Your task to perform on an android device: turn off smart reply in the gmail app Image 0: 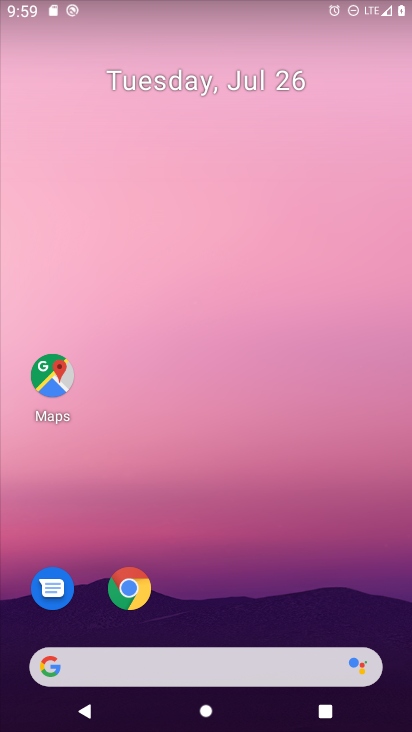
Step 0: drag from (183, 663) to (151, 96)
Your task to perform on an android device: turn off smart reply in the gmail app Image 1: 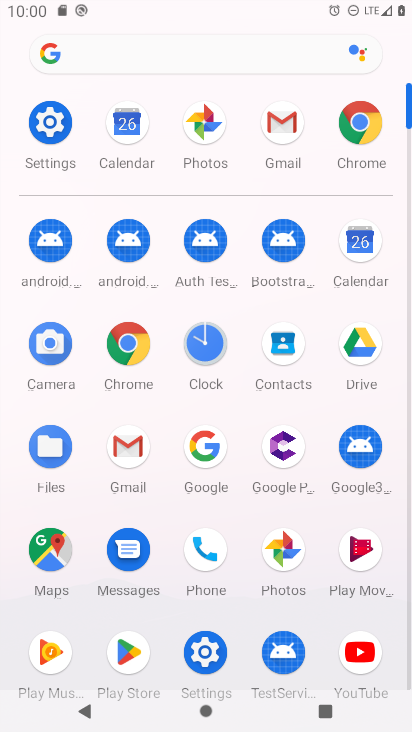
Step 1: click (149, 454)
Your task to perform on an android device: turn off smart reply in the gmail app Image 2: 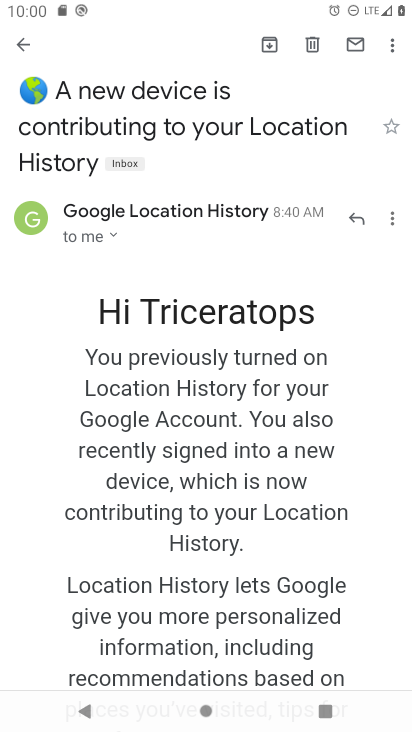
Step 2: click (21, 50)
Your task to perform on an android device: turn off smart reply in the gmail app Image 3: 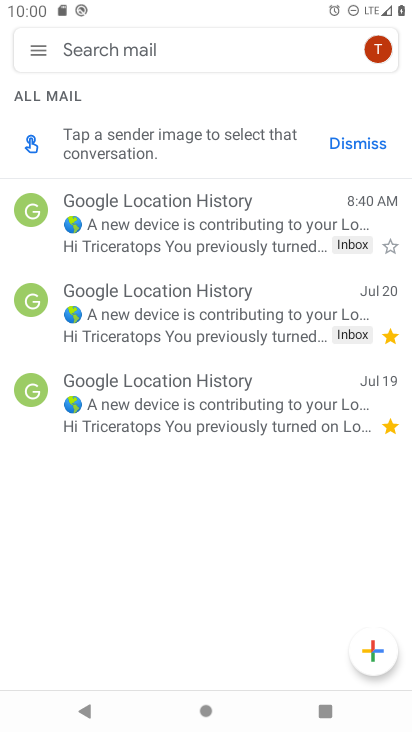
Step 3: click (43, 52)
Your task to perform on an android device: turn off smart reply in the gmail app Image 4: 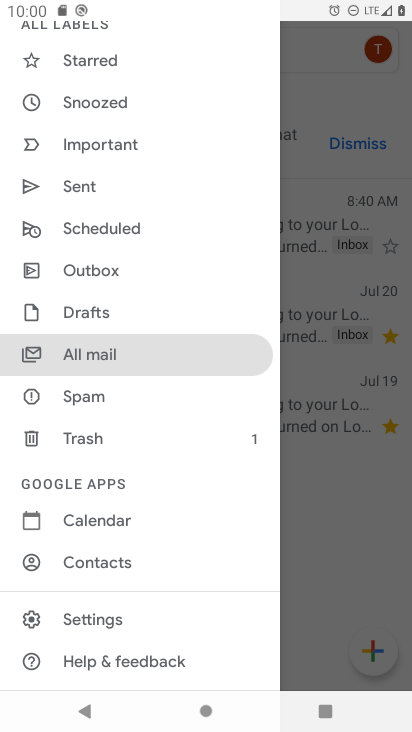
Step 4: click (98, 617)
Your task to perform on an android device: turn off smart reply in the gmail app Image 5: 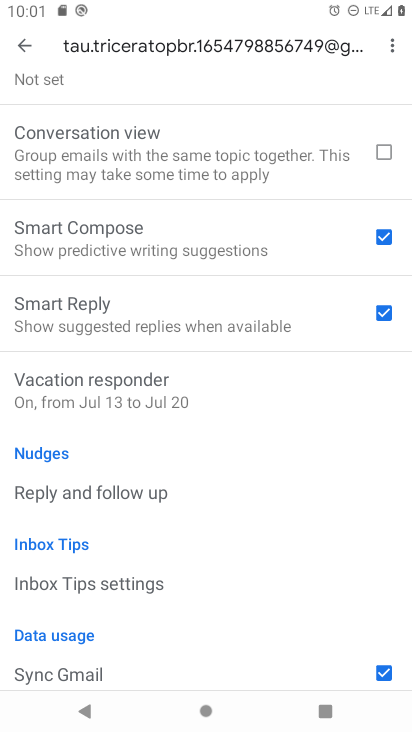
Step 5: drag from (187, 501) to (168, 135)
Your task to perform on an android device: turn off smart reply in the gmail app Image 6: 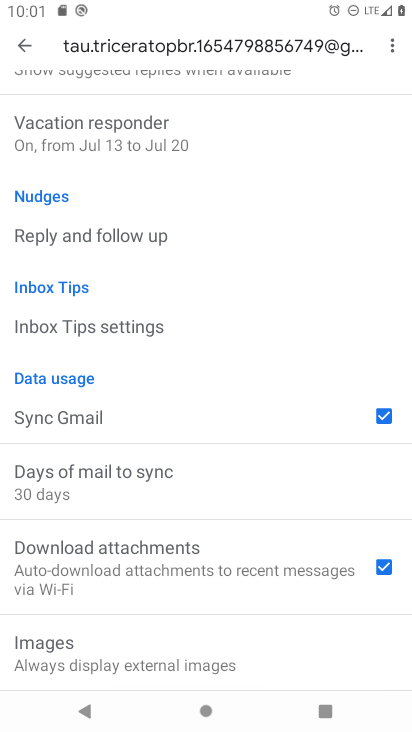
Step 6: drag from (213, 334) to (285, 712)
Your task to perform on an android device: turn off smart reply in the gmail app Image 7: 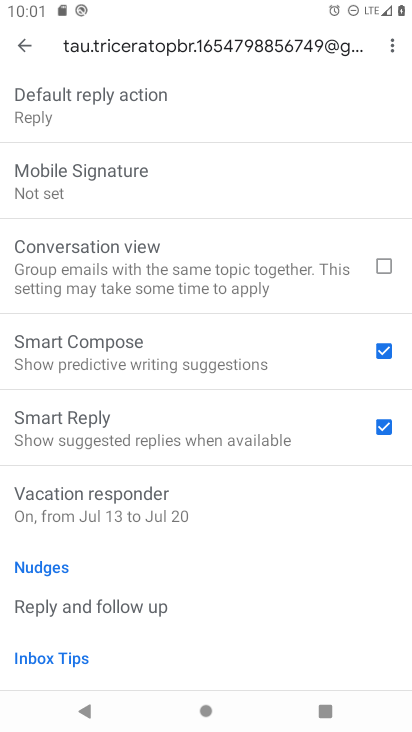
Step 7: click (381, 424)
Your task to perform on an android device: turn off smart reply in the gmail app Image 8: 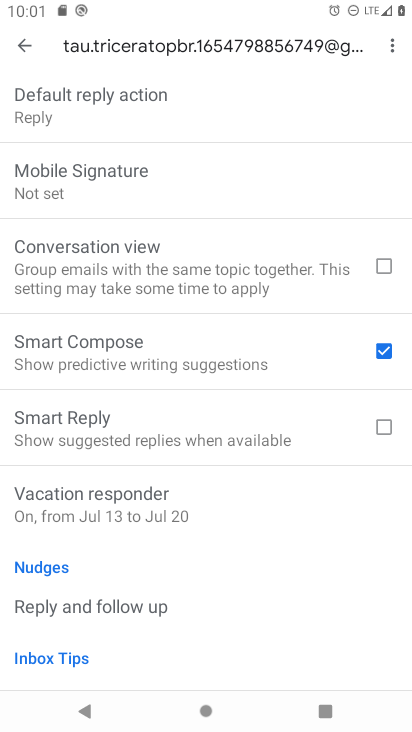
Step 8: task complete